Your task to perform on an android device: Open Chrome and go to settings Image 0: 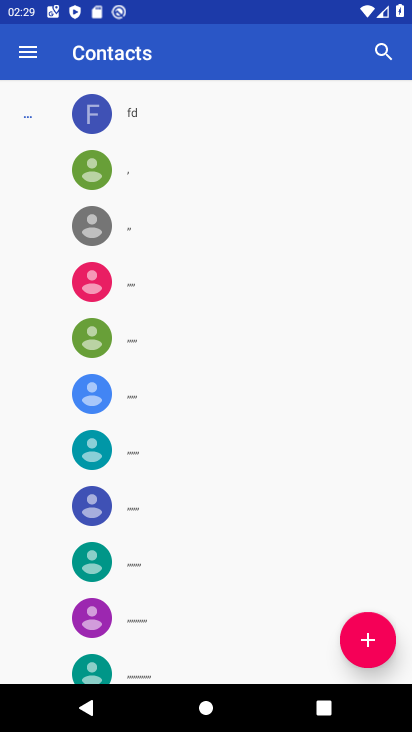
Step 0: press back button
Your task to perform on an android device: Open Chrome and go to settings Image 1: 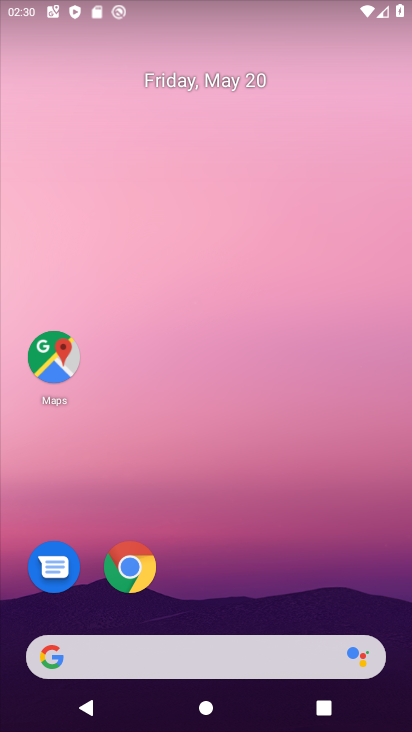
Step 1: drag from (258, 540) to (233, 52)
Your task to perform on an android device: Open Chrome and go to settings Image 2: 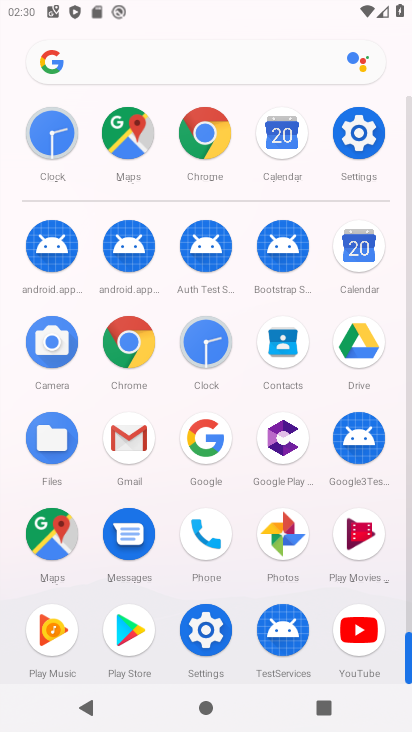
Step 2: drag from (12, 533) to (16, 251)
Your task to perform on an android device: Open Chrome and go to settings Image 3: 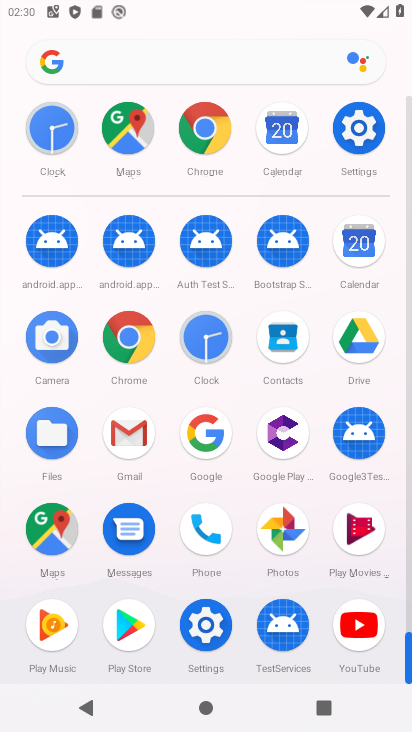
Step 3: click (207, 128)
Your task to perform on an android device: Open Chrome and go to settings Image 4: 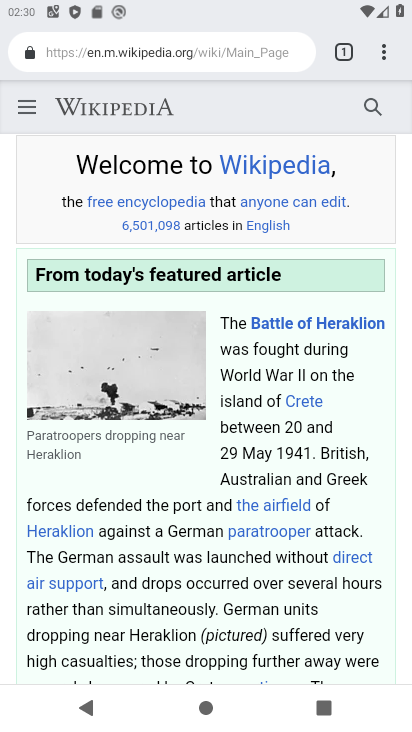
Step 4: task complete